Your task to perform on an android device: Show me productivity apps on the Play Store Image 0: 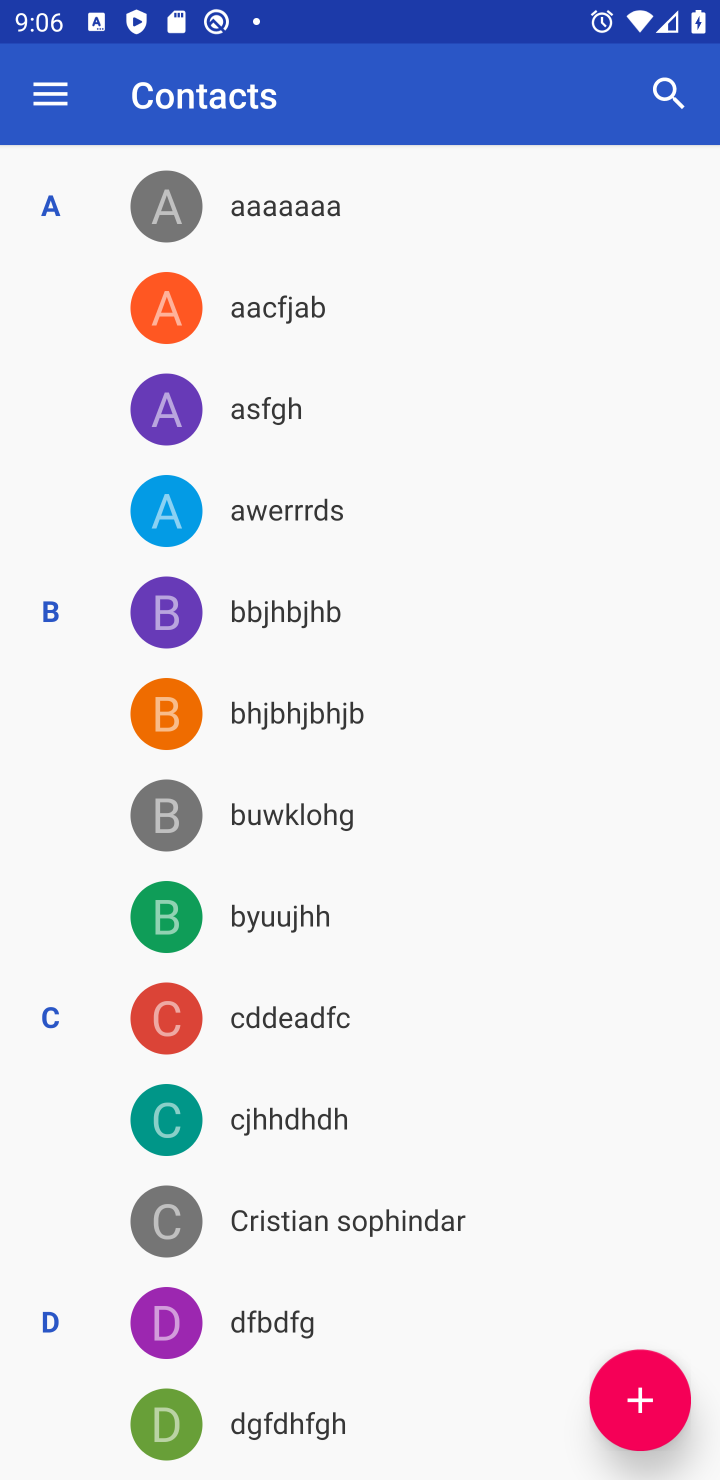
Step 0: press home button
Your task to perform on an android device: Show me productivity apps on the Play Store Image 1: 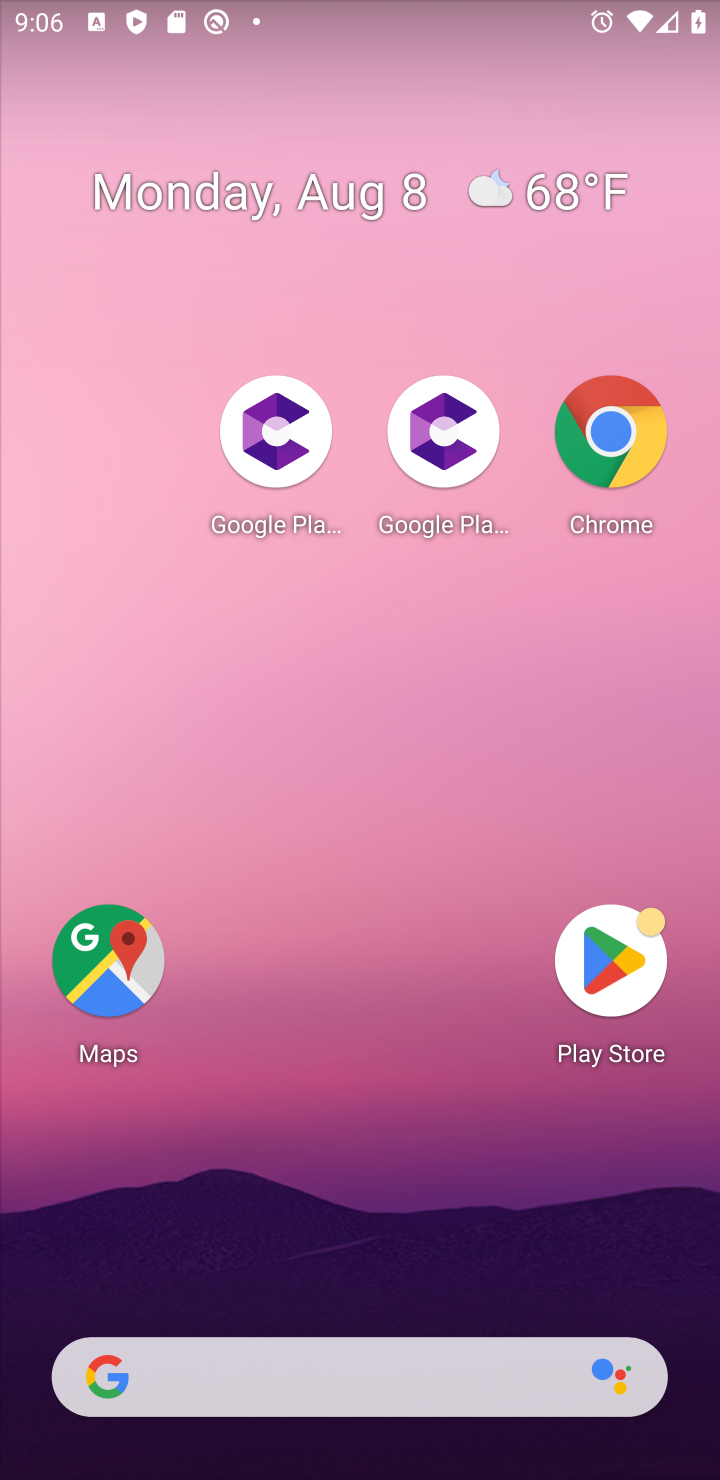
Step 1: click (600, 970)
Your task to perform on an android device: Show me productivity apps on the Play Store Image 2: 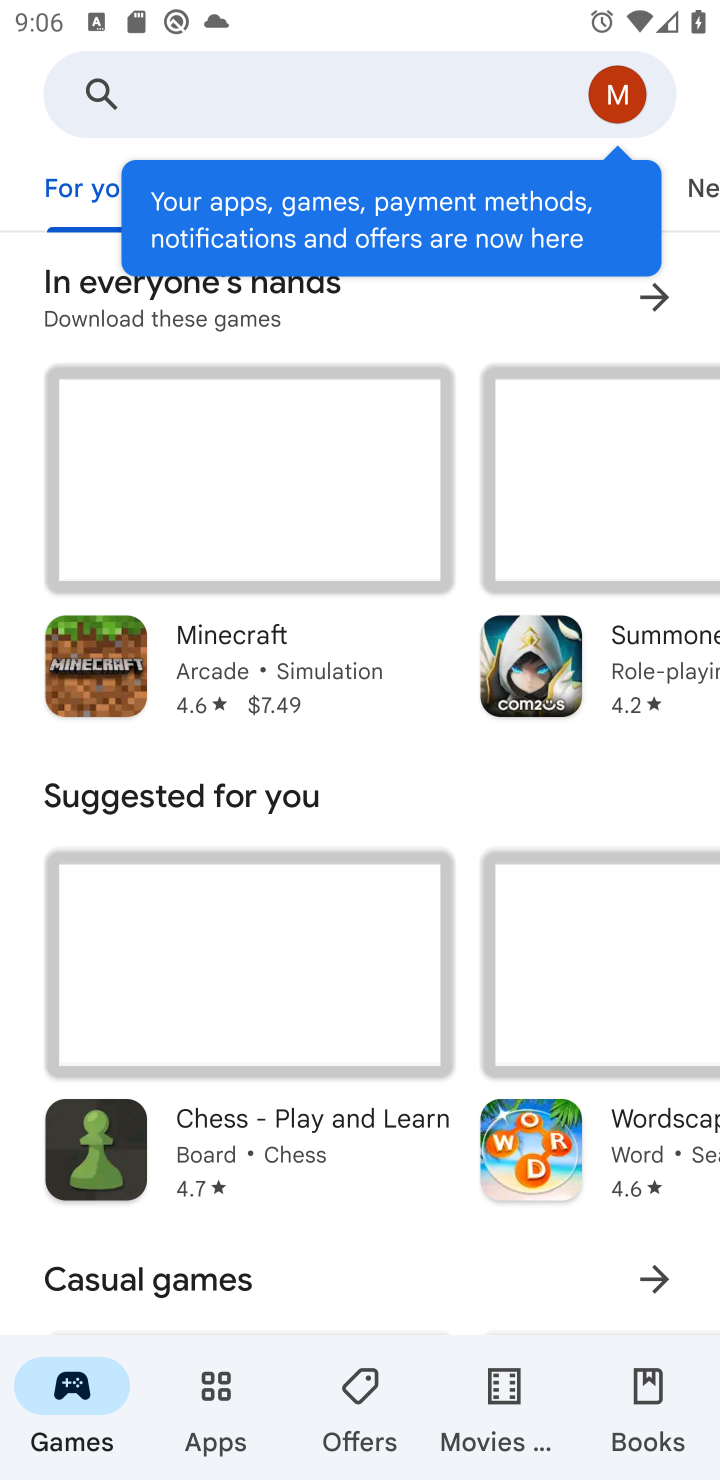
Step 2: click (208, 1414)
Your task to perform on an android device: Show me productivity apps on the Play Store Image 3: 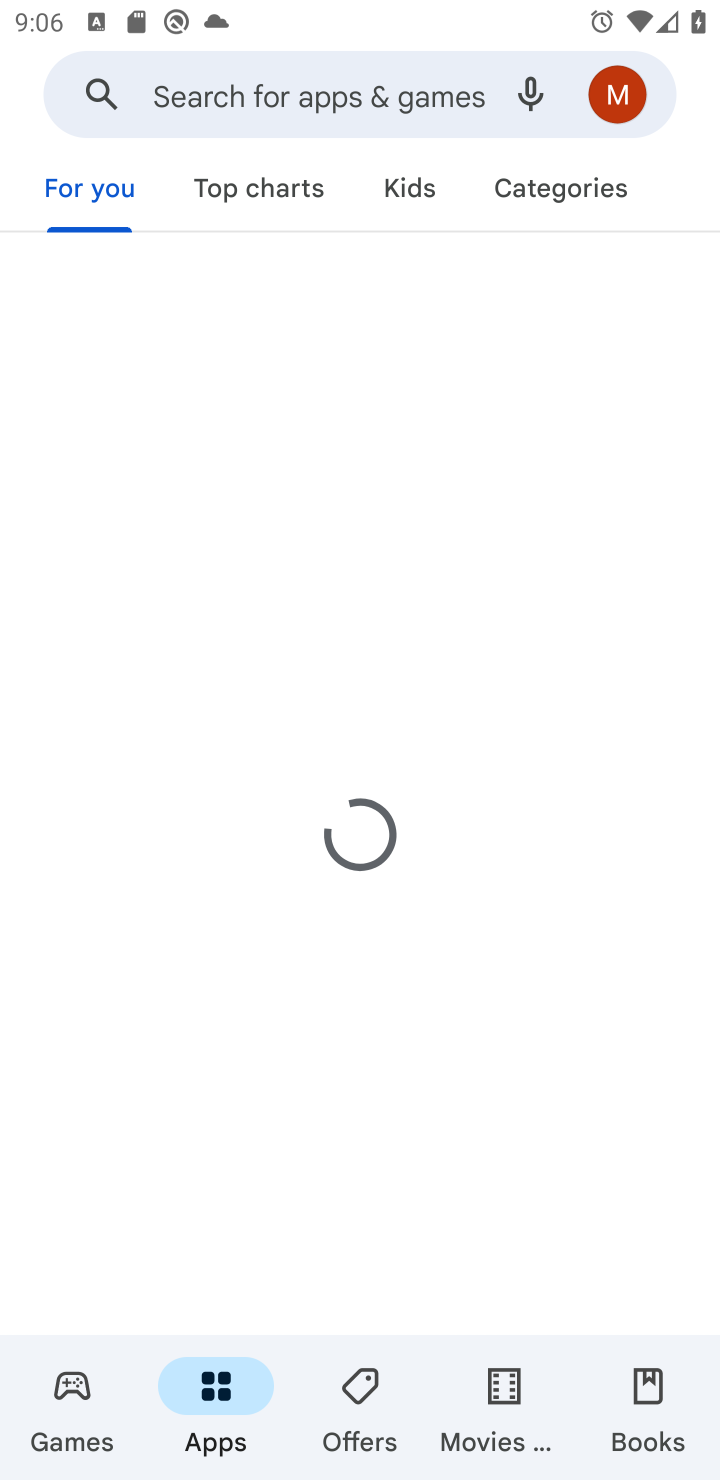
Step 3: click (560, 178)
Your task to perform on an android device: Show me productivity apps on the Play Store Image 4: 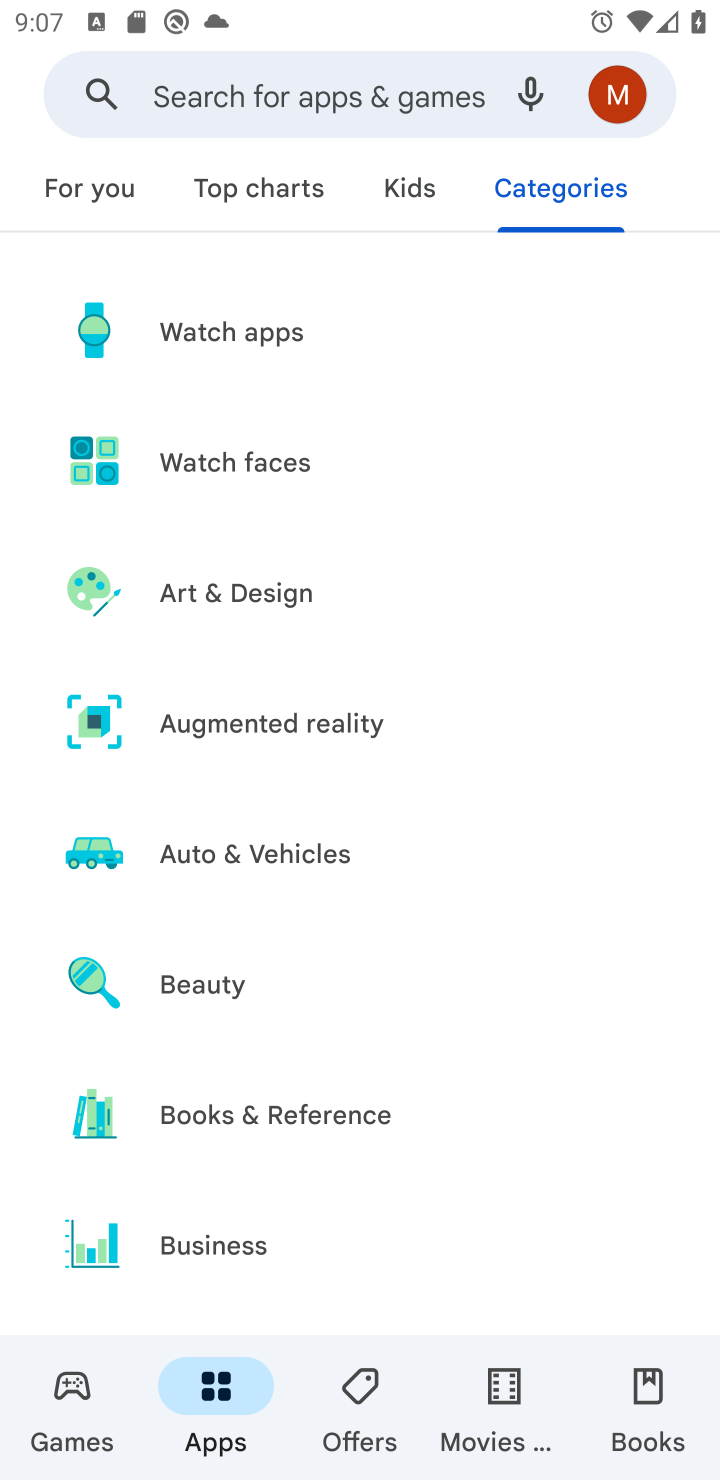
Step 4: drag from (298, 1205) to (460, 246)
Your task to perform on an android device: Show me productivity apps on the Play Store Image 5: 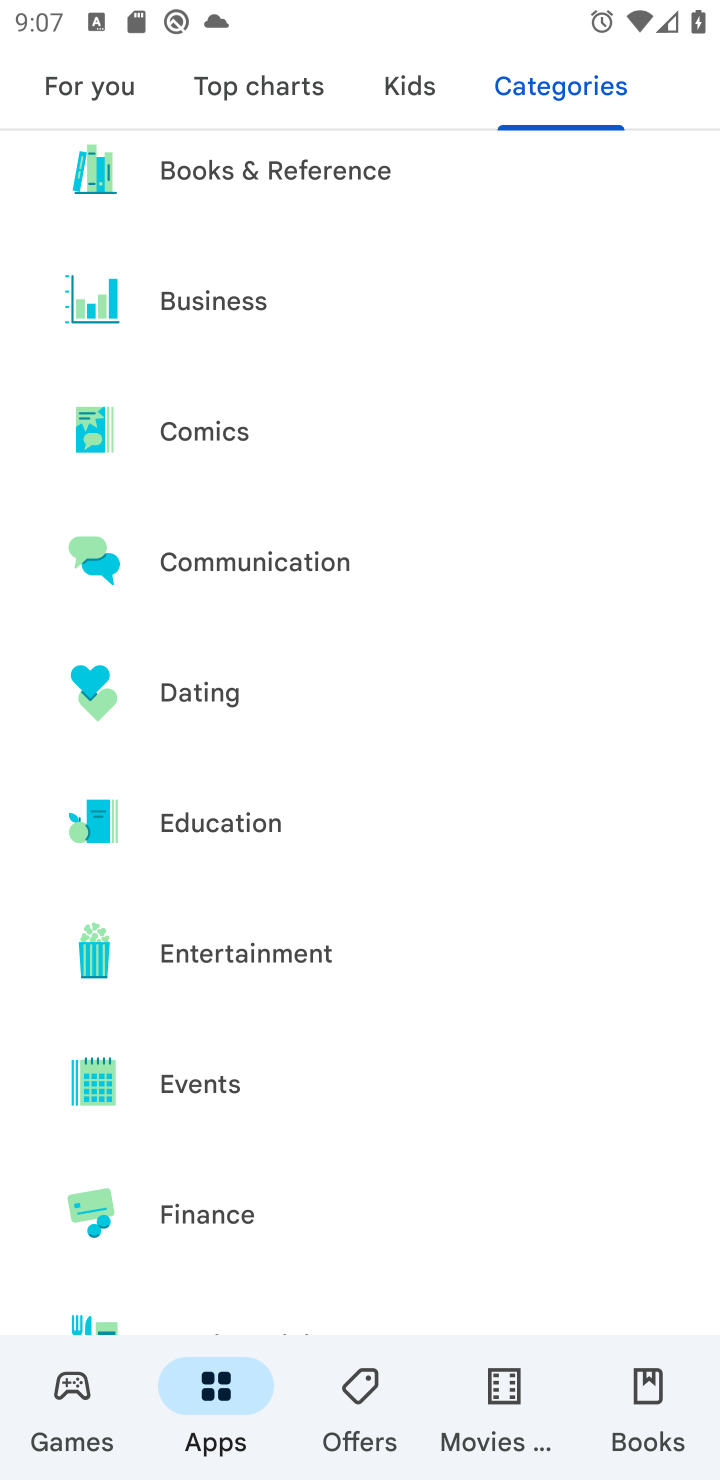
Step 5: drag from (318, 1223) to (235, 539)
Your task to perform on an android device: Show me productivity apps on the Play Store Image 6: 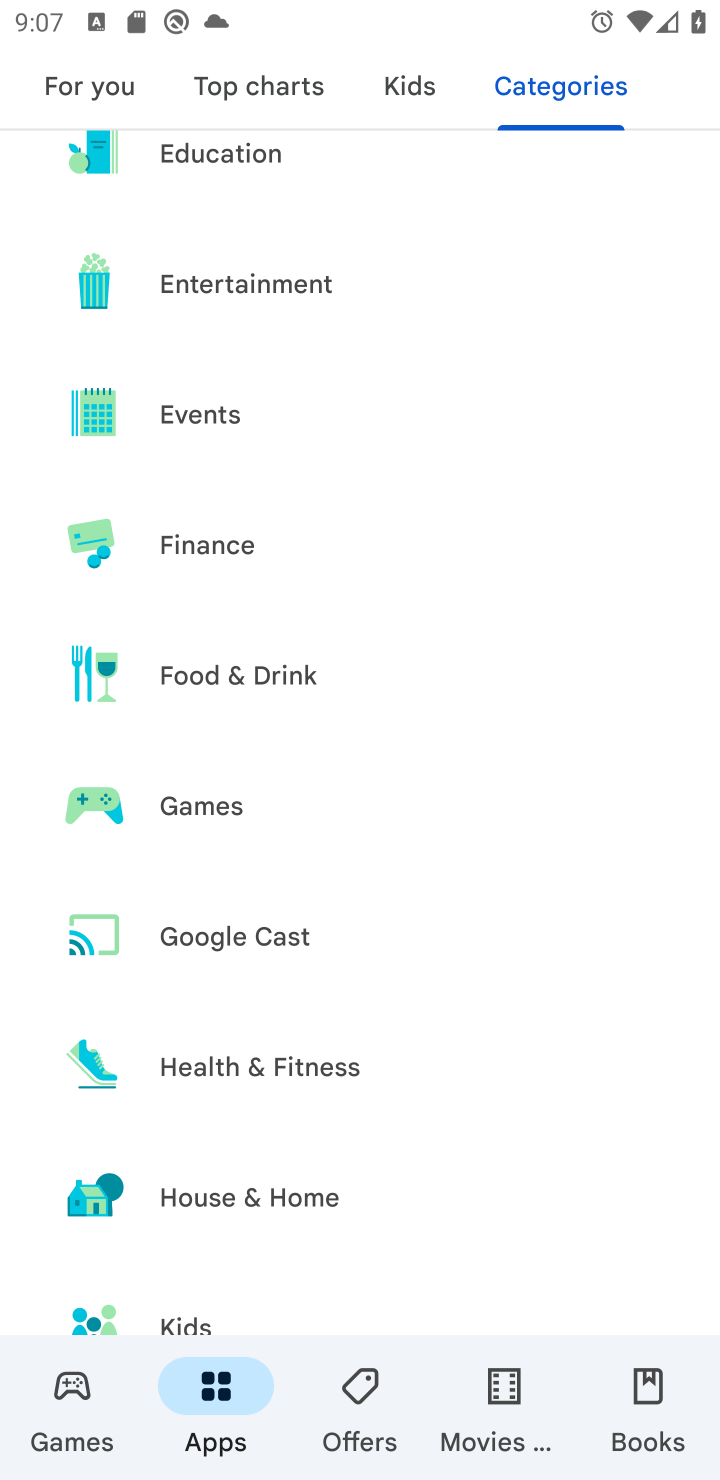
Step 6: drag from (305, 1295) to (358, 509)
Your task to perform on an android device: Show me productivity apps on the Play Store Image 7: 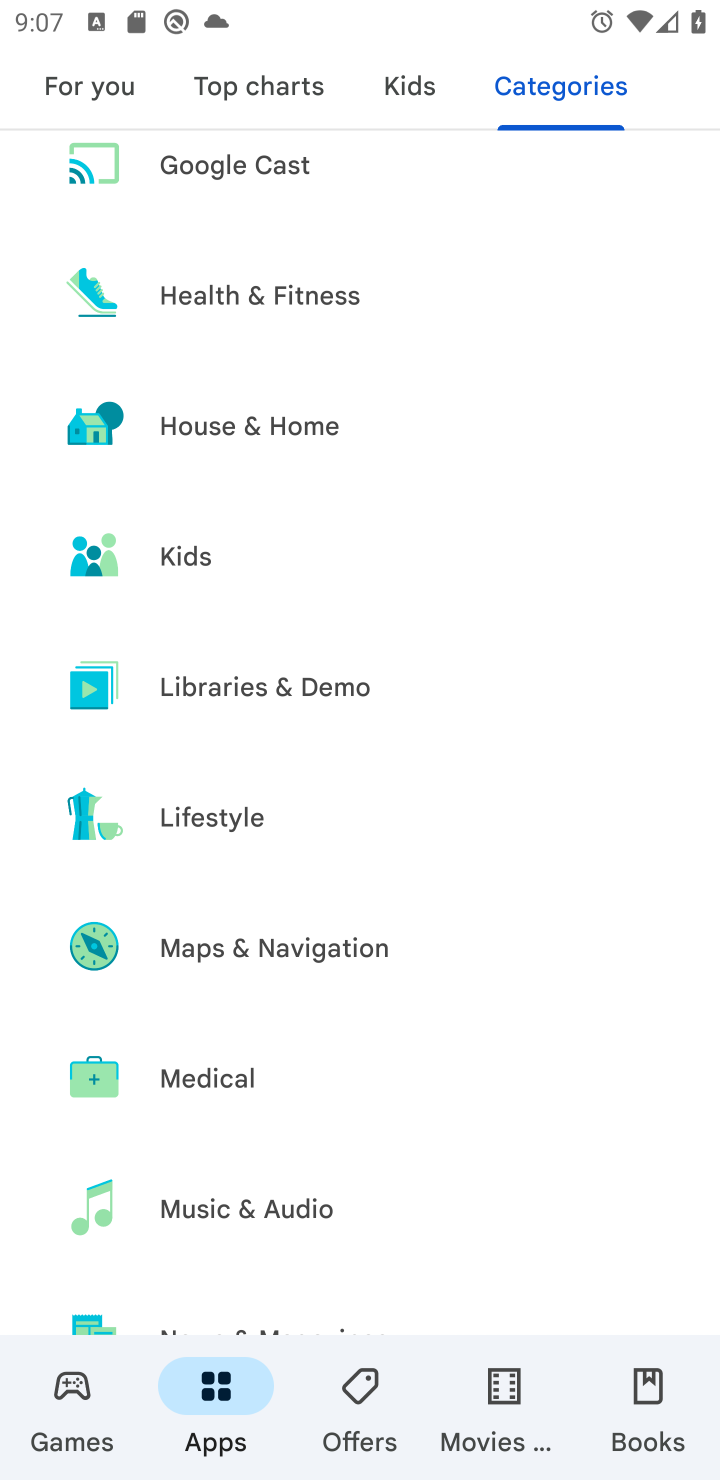
Step 7: drag from (356, 1228) to (429, 503)
Your task to perform on an android device: Show me productivity apps on the Play Store Image 8: 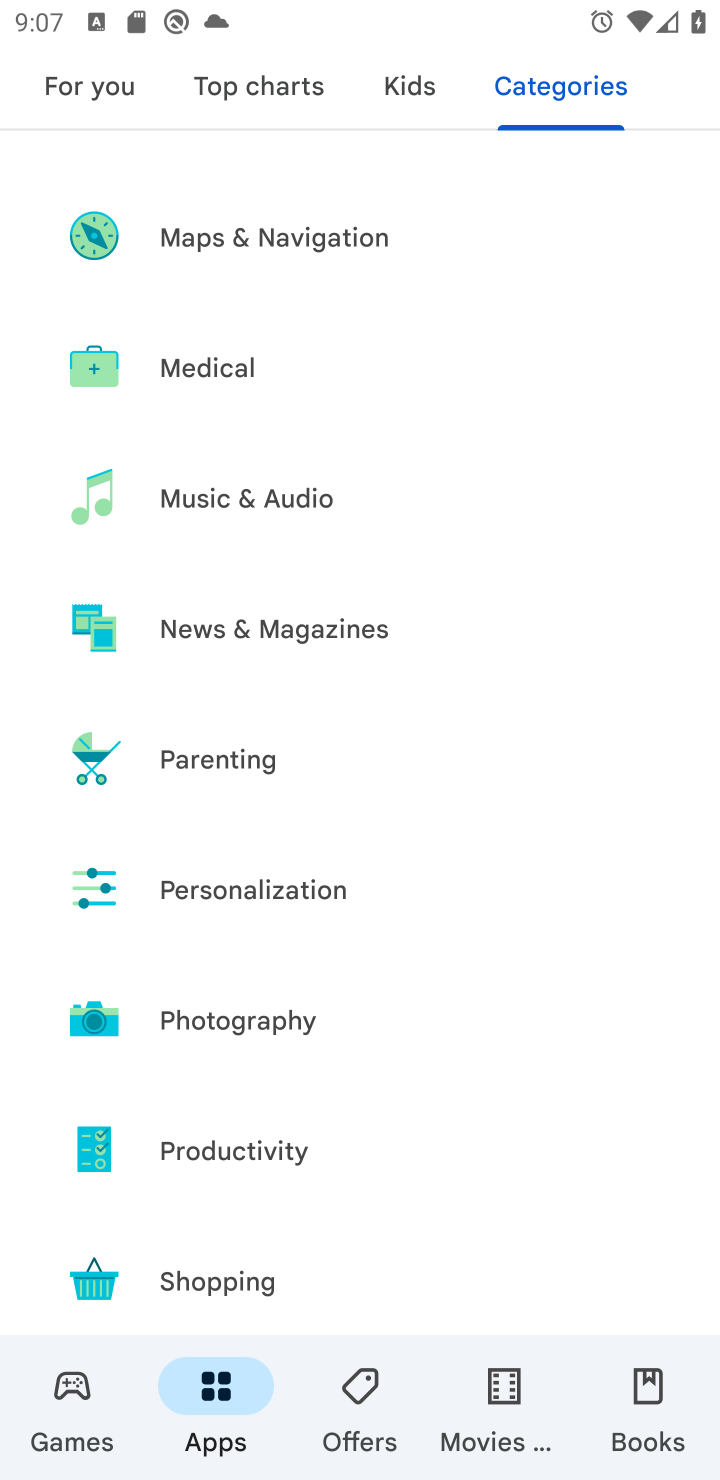
Step 8: click (390, 1159)
Your task to perform on an android device: Show me productivity apps on the Play Store Image 9: 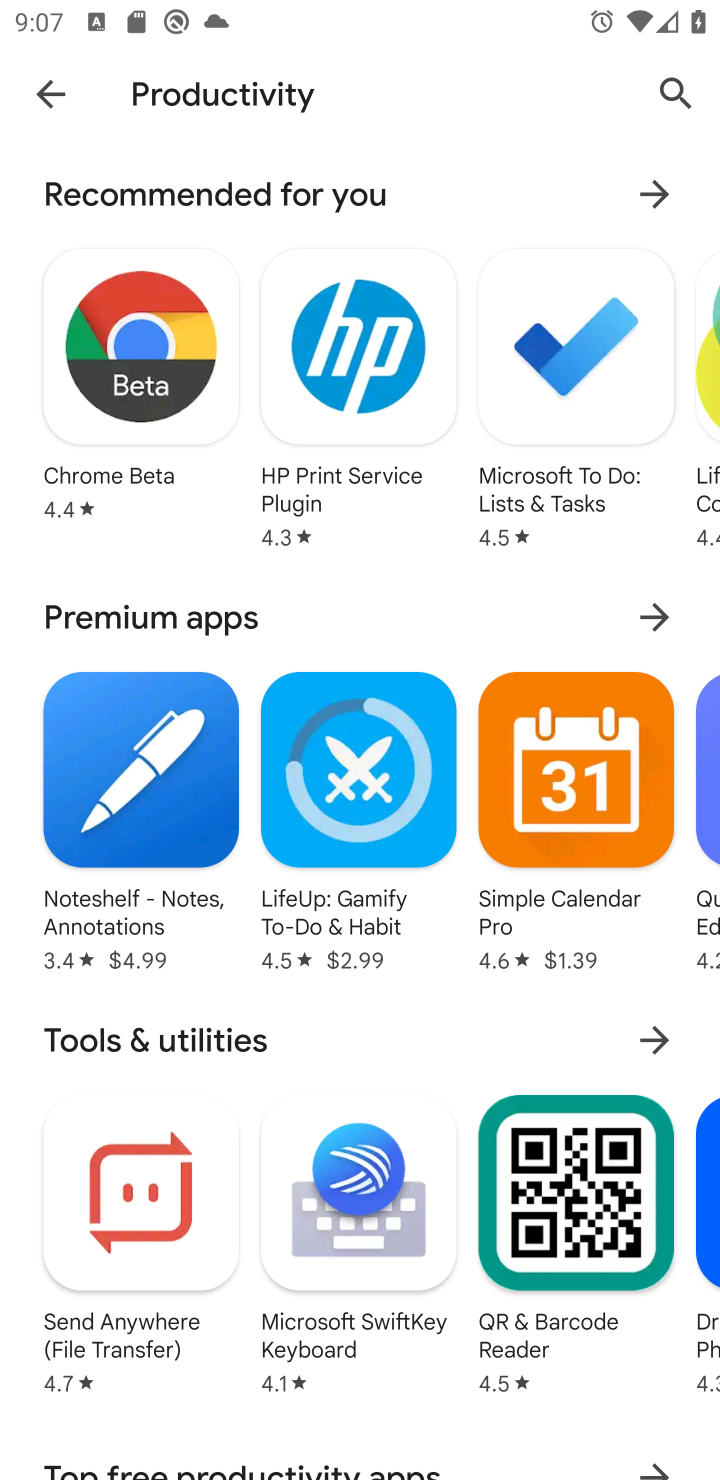
Step 9: click (390, 1159)
Your task to perform on an android device: Show me productivity apps on the Play Store Image 10: 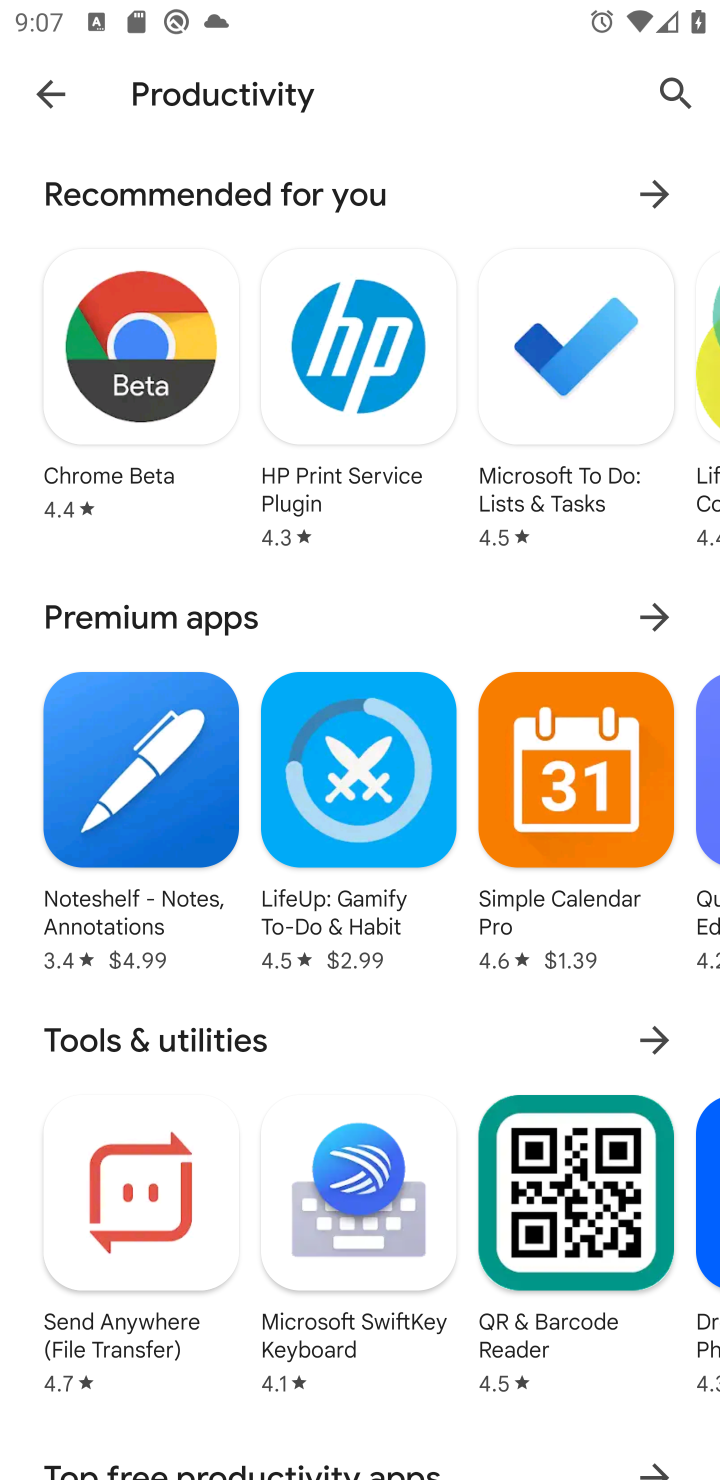
Step 10: click (390, 1159)
Your task to perform on an android device: Show me productivity apps on the Play Store Image 11: 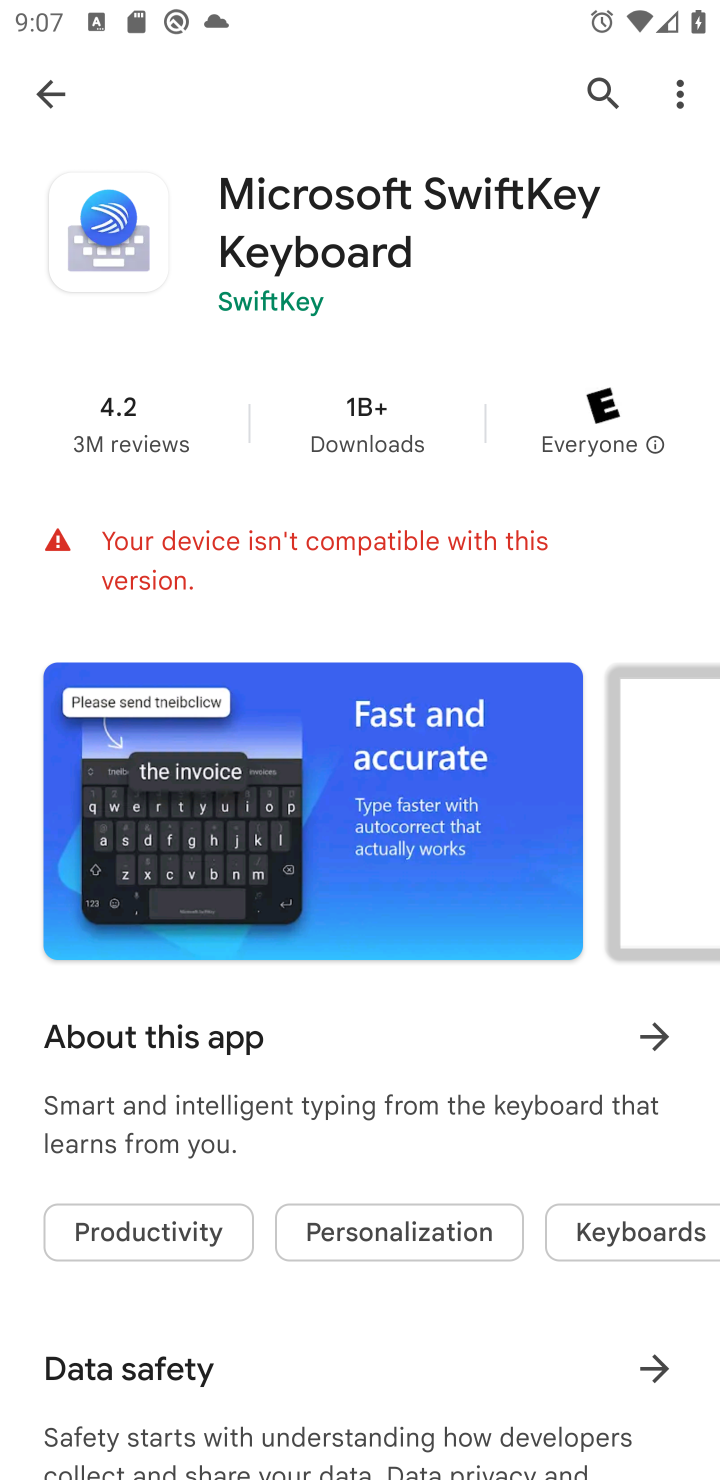
Step 11: click (33, 107)
Your task to perform on an android device: Show me productivity apps on the Play Store Image 12: 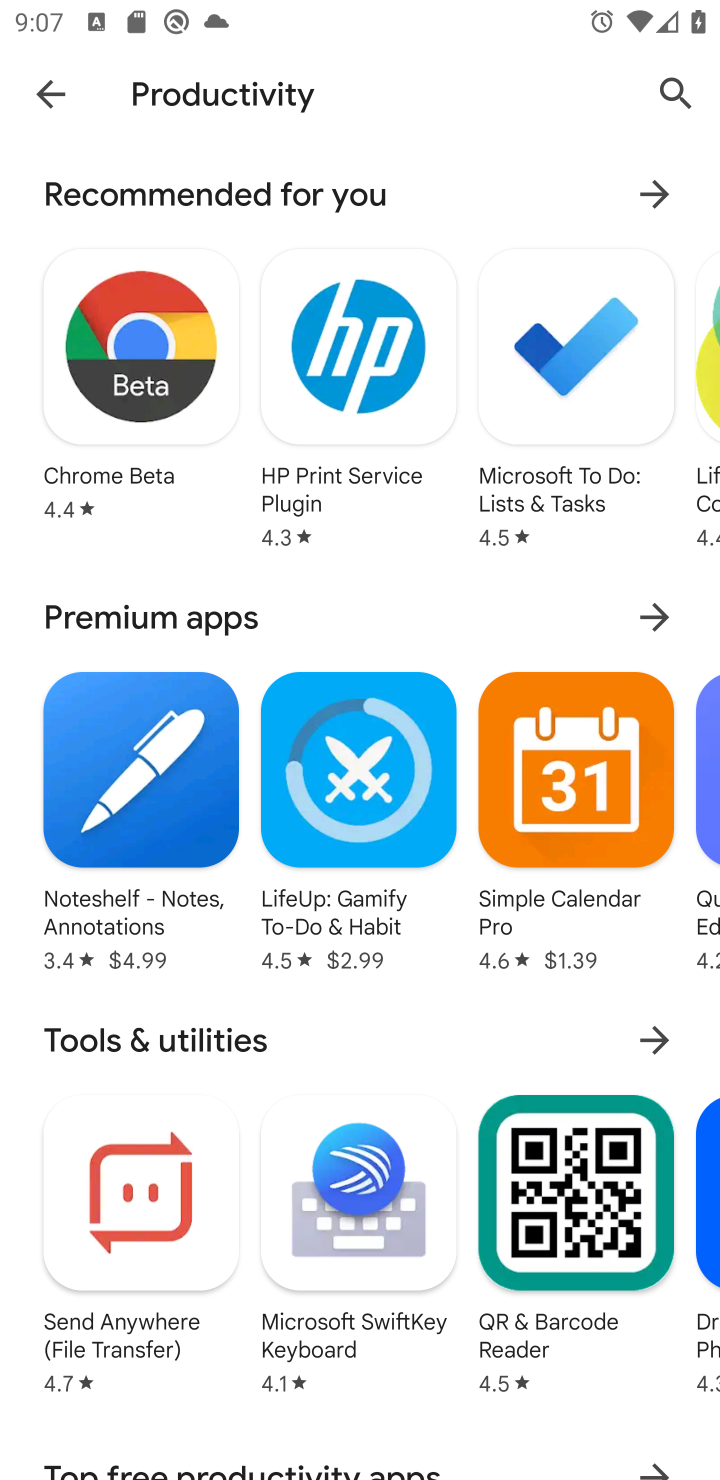
Step 12: task complete